Your task to perform on an android device: What's on my calendar today? Image 0: 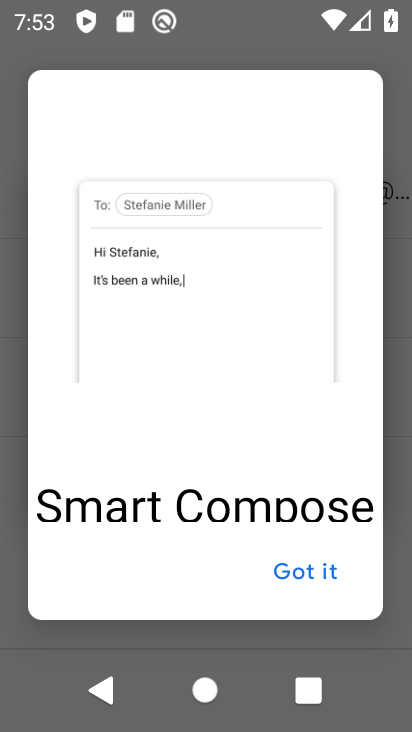
Step 0: press home button
Your task to perform on an android device: What's on my calendar today? Image 1: 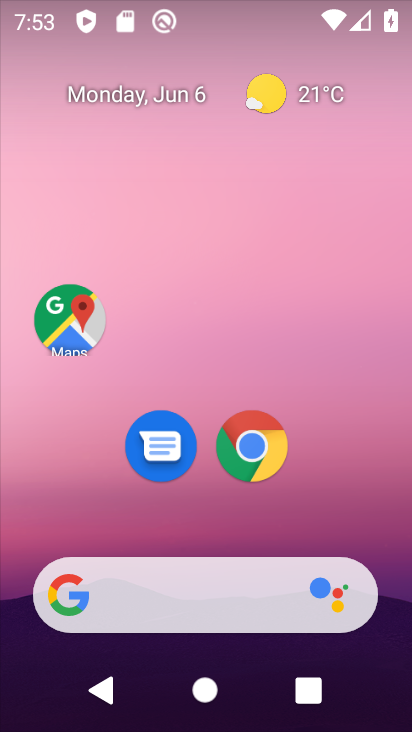
Step 1: drag from (323, 496) to (349, 258)
Your task to perform on an android device: What's on my calendar today? Image 2: 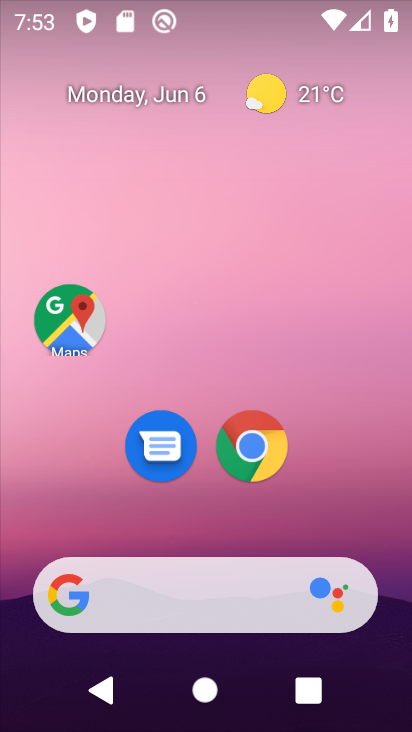
Step 2: drag from (343, 376) to (407, 66)
Your task to perform on an android device: What's on my calendar today? Image 3: 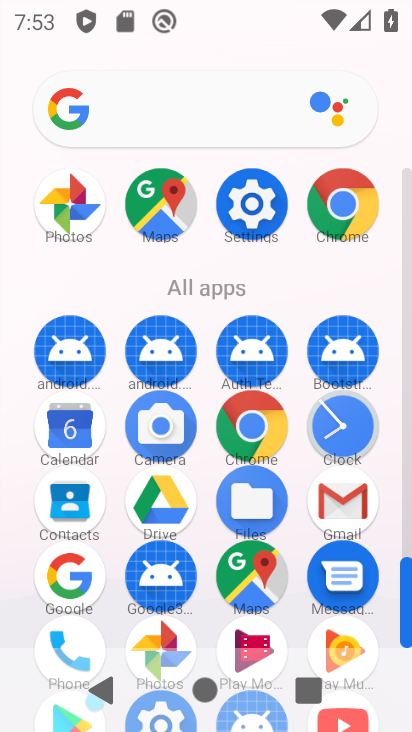
Step 3: click (61, 436)
Your task to perform on an android device: What's on my calendar today? Image 4: 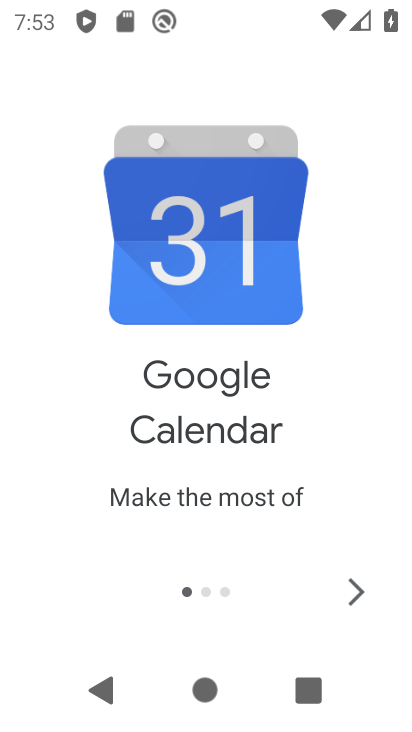
Step 4: click (359, 581)
Your task to perform on an android device: What's on my calendar today? Image 5: 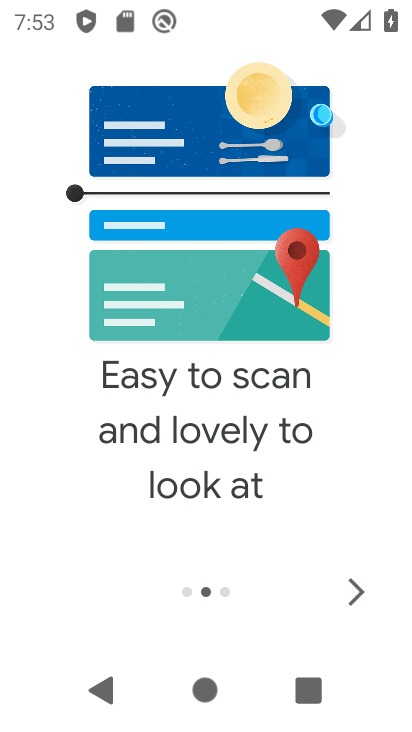
Step 5: click (359, 581)
Your task to perform on an android device: What's on my calendar today? Image 6: 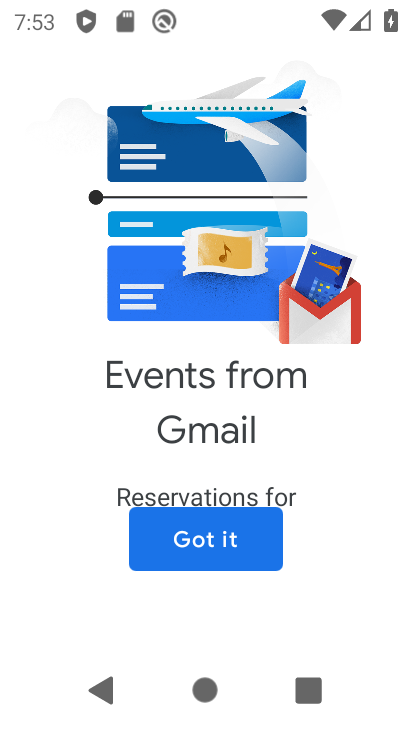
Step 6: click (210, 546)
Your task to perform on an android device: What's on my calendar today? Image 7: 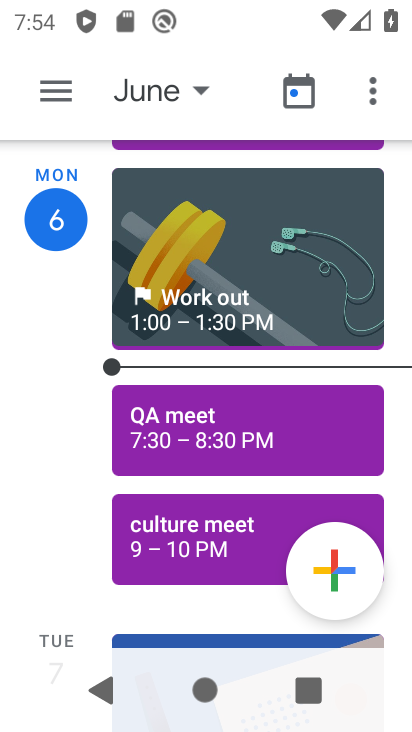
Step 7: click (62, 568)
Your task to perform on an android device: What's on my calendar today? Image 8: 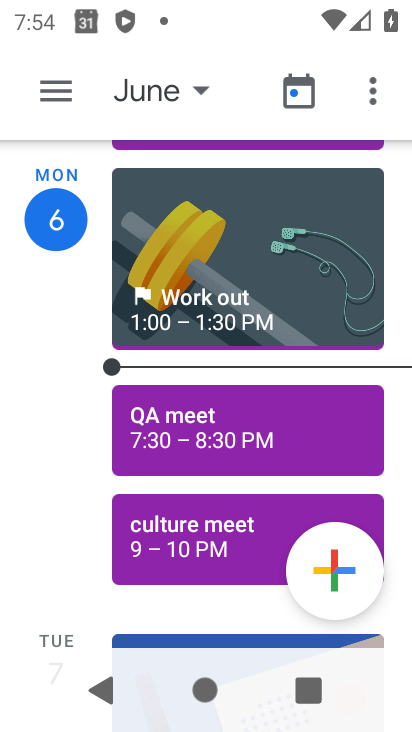
Step 8: task complete